Your task to perform on an android device: open sync settings in chrome Image 0: 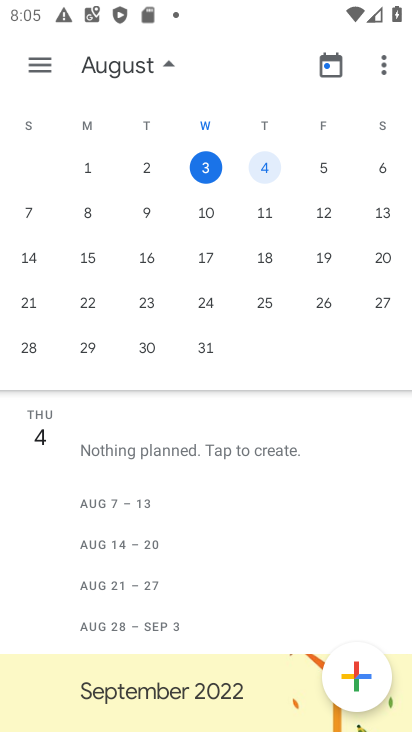
Step 0: press home button
Your task to perform on an android device: open sync settings in chrome Image 1: 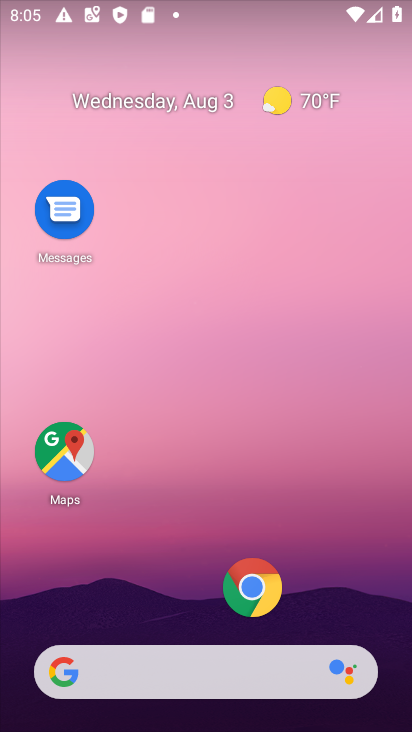
Step 1: click (244, 601)
Your task to perform on an android device: open sync settings in chrome Image 2: 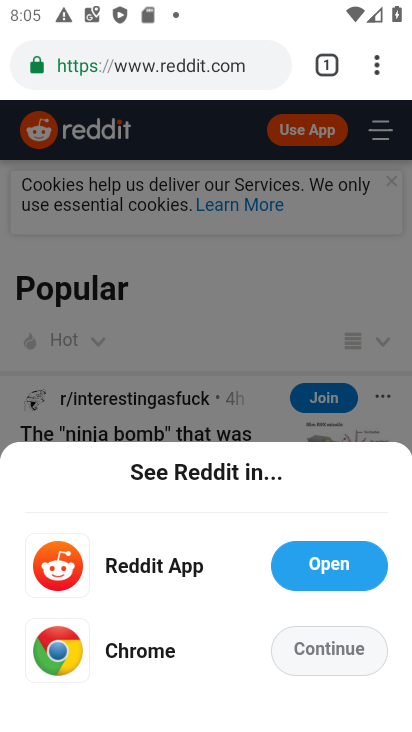
Step 2: click (389, 70)
Your task to perform on an android device: open sync settings in chrome Image 3: 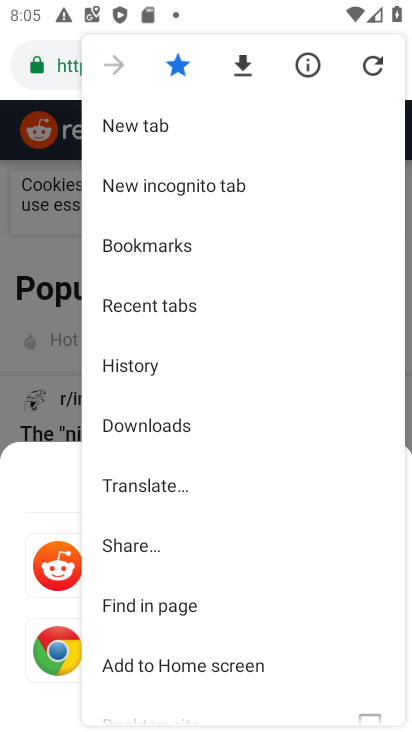
Step 3: drag from (251, 627) to (251, 361)
Your task to perform on an android device: open sync settings in chrome Image 4: 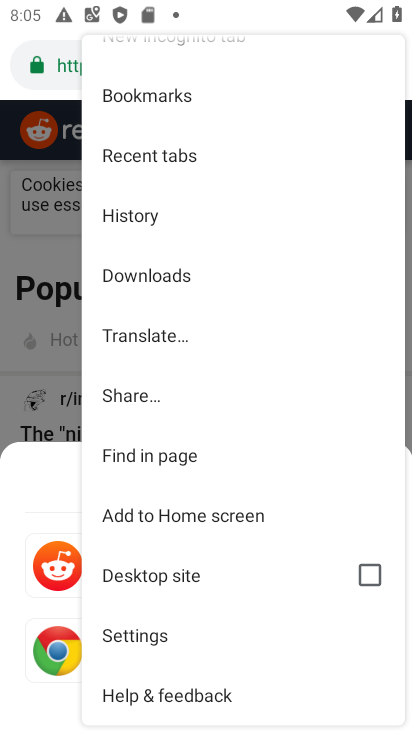
Step 4: click (201, 649)
Your task to perform on an android device: open sync settings in chrome Image 5: 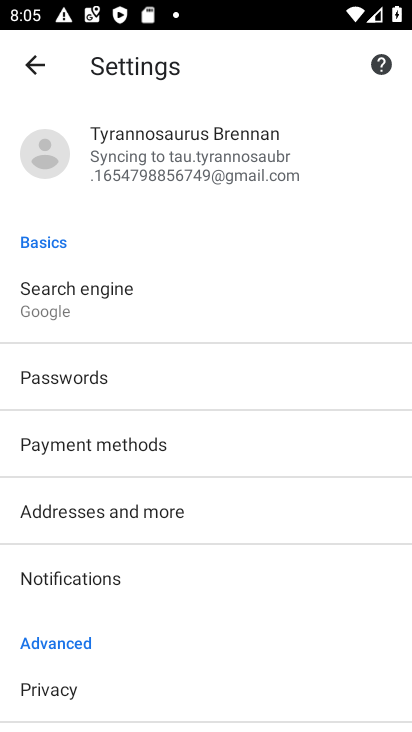
Step 5: click (142, 173)
Your task to perform on an android device: open sync settings in chrome Image 6: 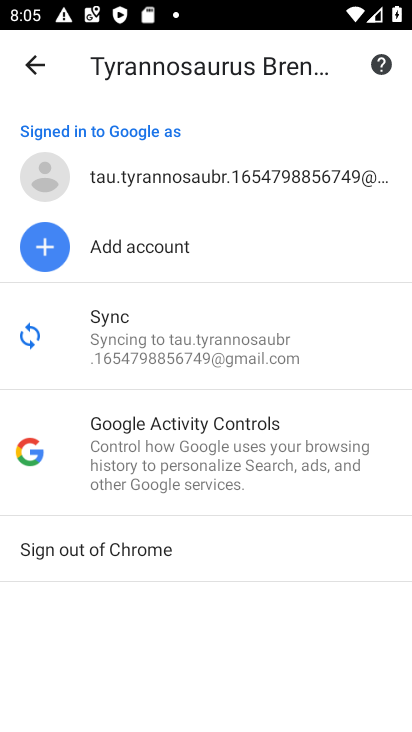
Step 6: click (167, 328)
Your task to perform on an android device: open sync settings in chrome Image 7: 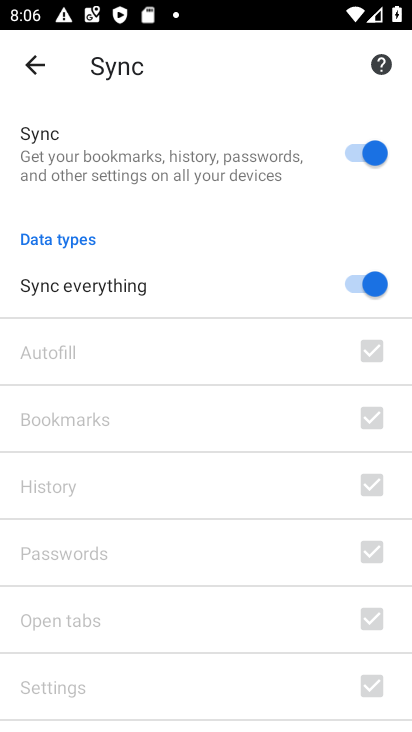
Step 7: task complete